Your task to perform on an android device: Open settings Image 0: 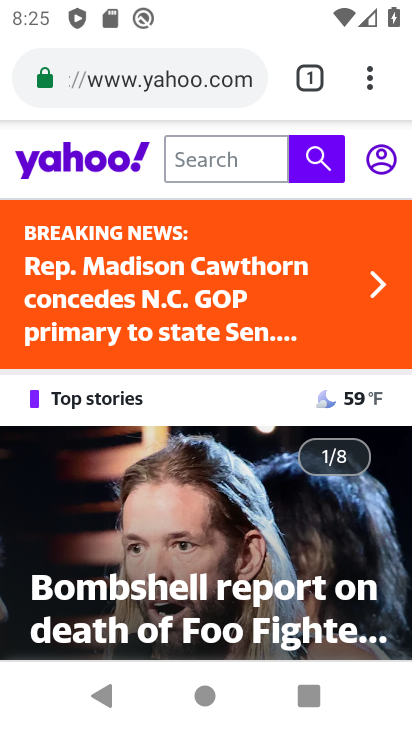
Step 0: press home button
Your task to perform on an android device: Open settings Image 1: 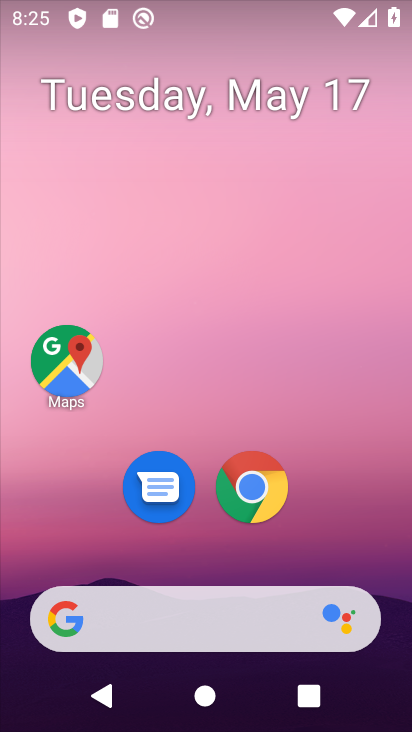
Step 1: drag from (262, 659) to (290, 214)
Your task to perform on an android device: Open settings Image 2: 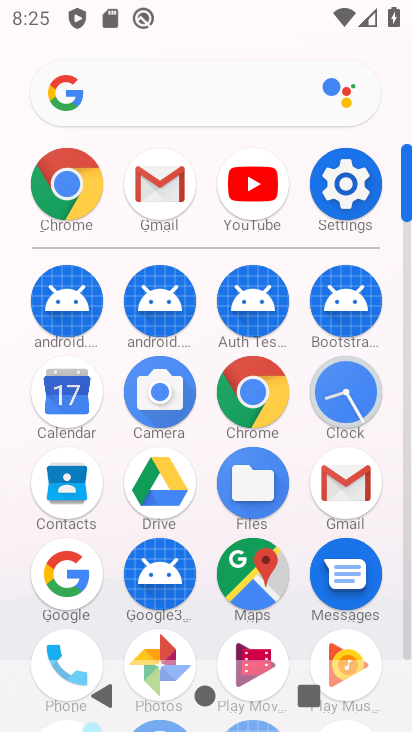
Step 2: click (350, 162)
Your task to perform on an android device: Open settings Image 3: 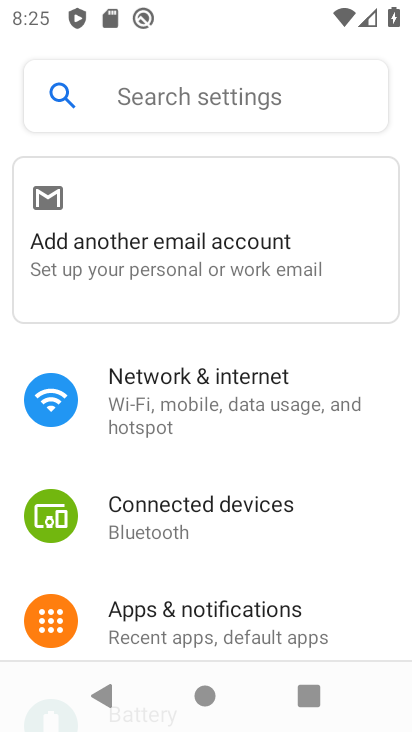
Step 3: task complete